Your task to perform on an android device: Go to location settings Image 0: 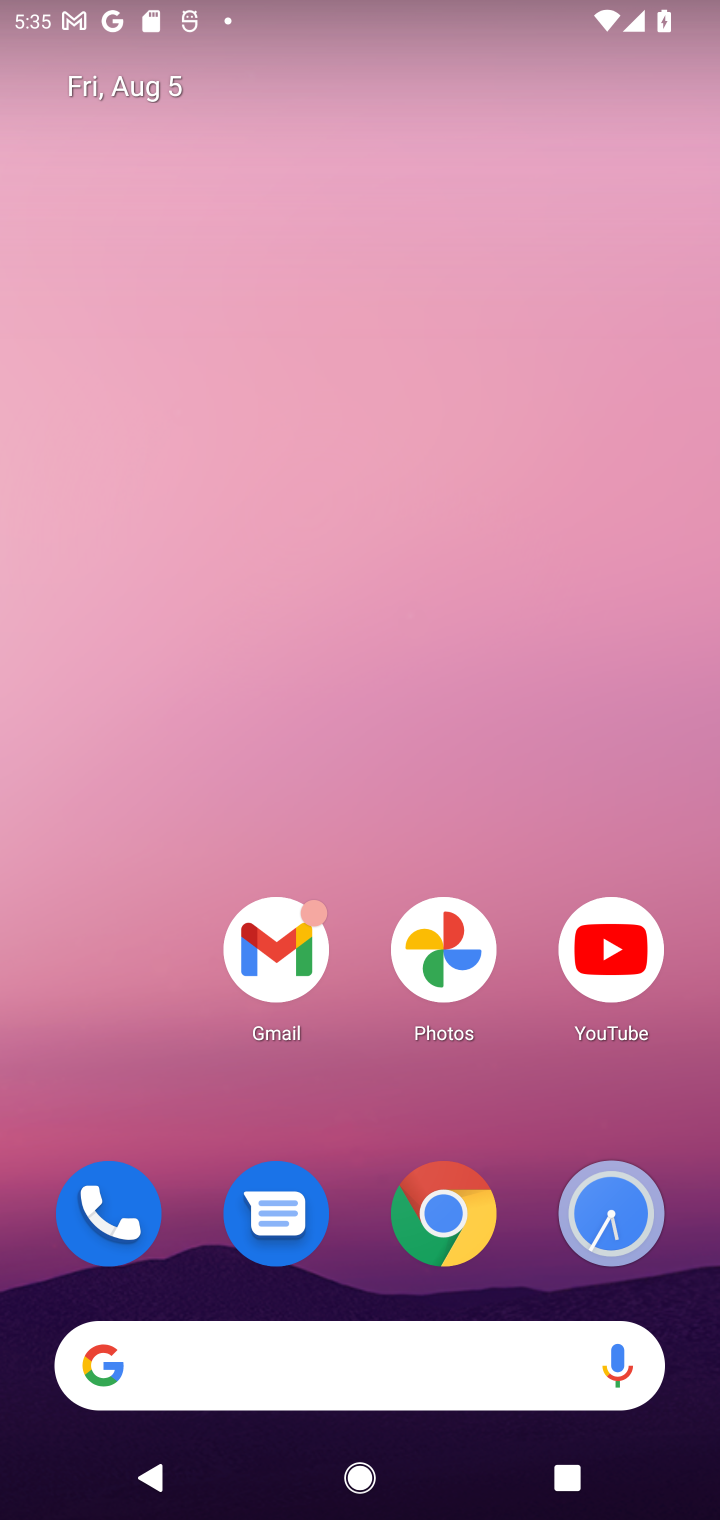
Step 0: drag from (368, 1283) to (449, 304)
Your task to perform on an android device: Go to location settings Image 1: 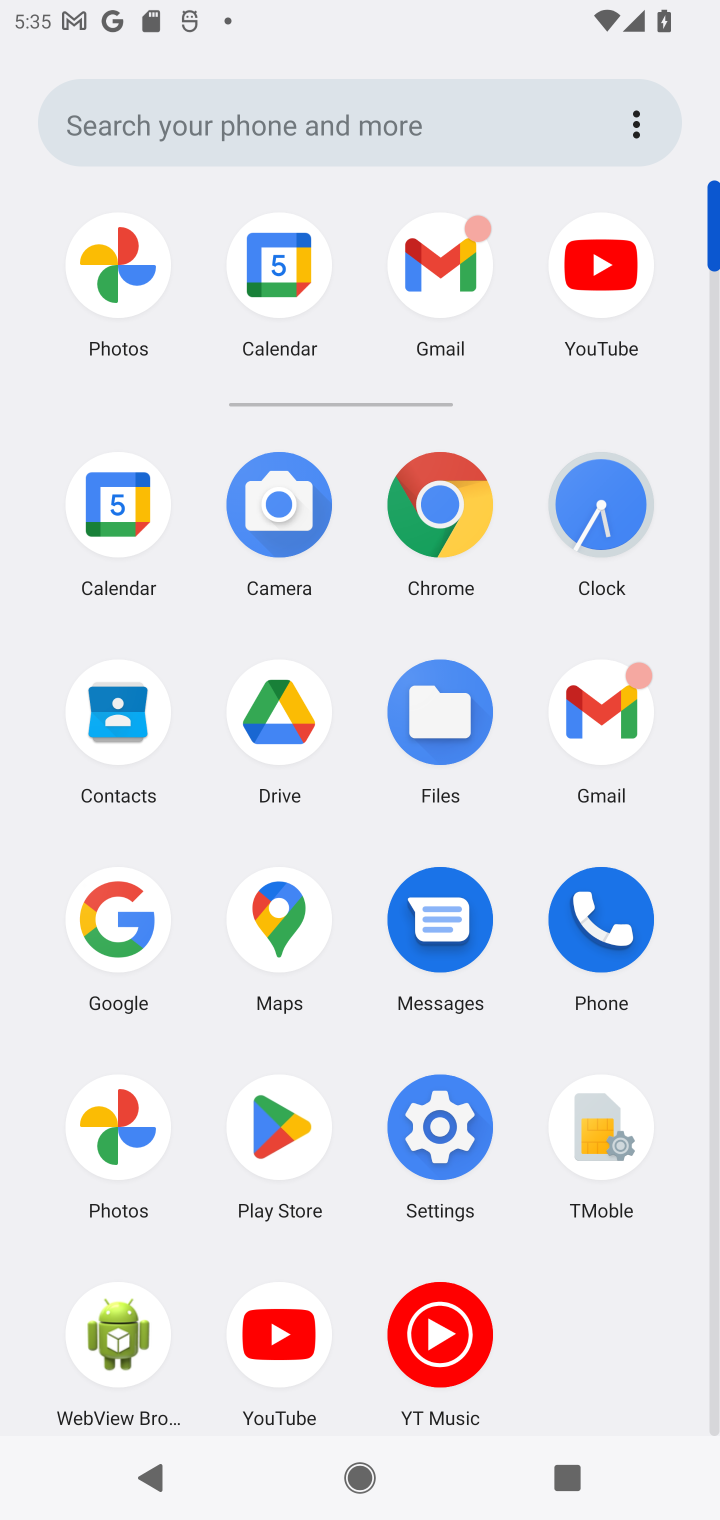
Step 1: click (404, 1131)
Your task to perform on an android device: Go to location settings Image 2: 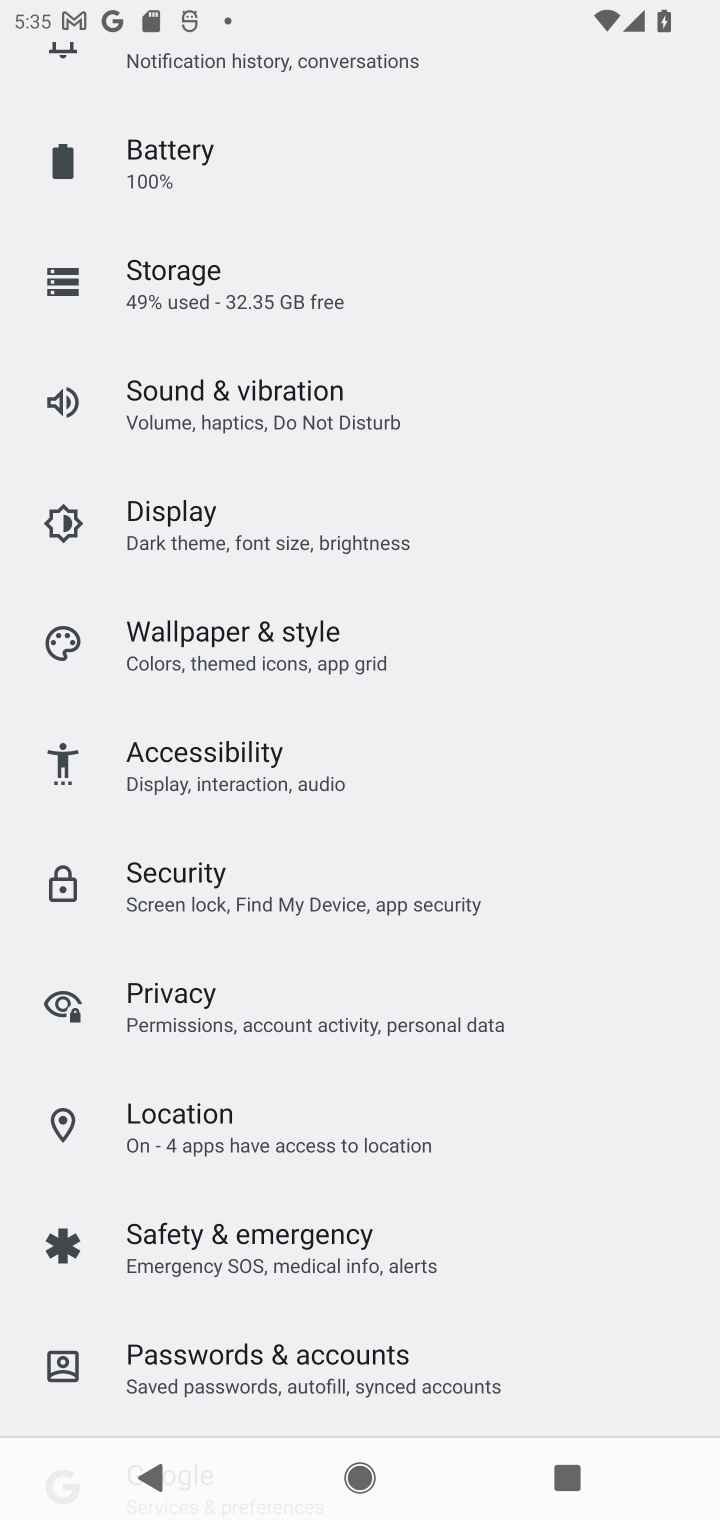
Step 2: click (404, 1131)
Your task to perform on an android device: Go to location settings Image 3: 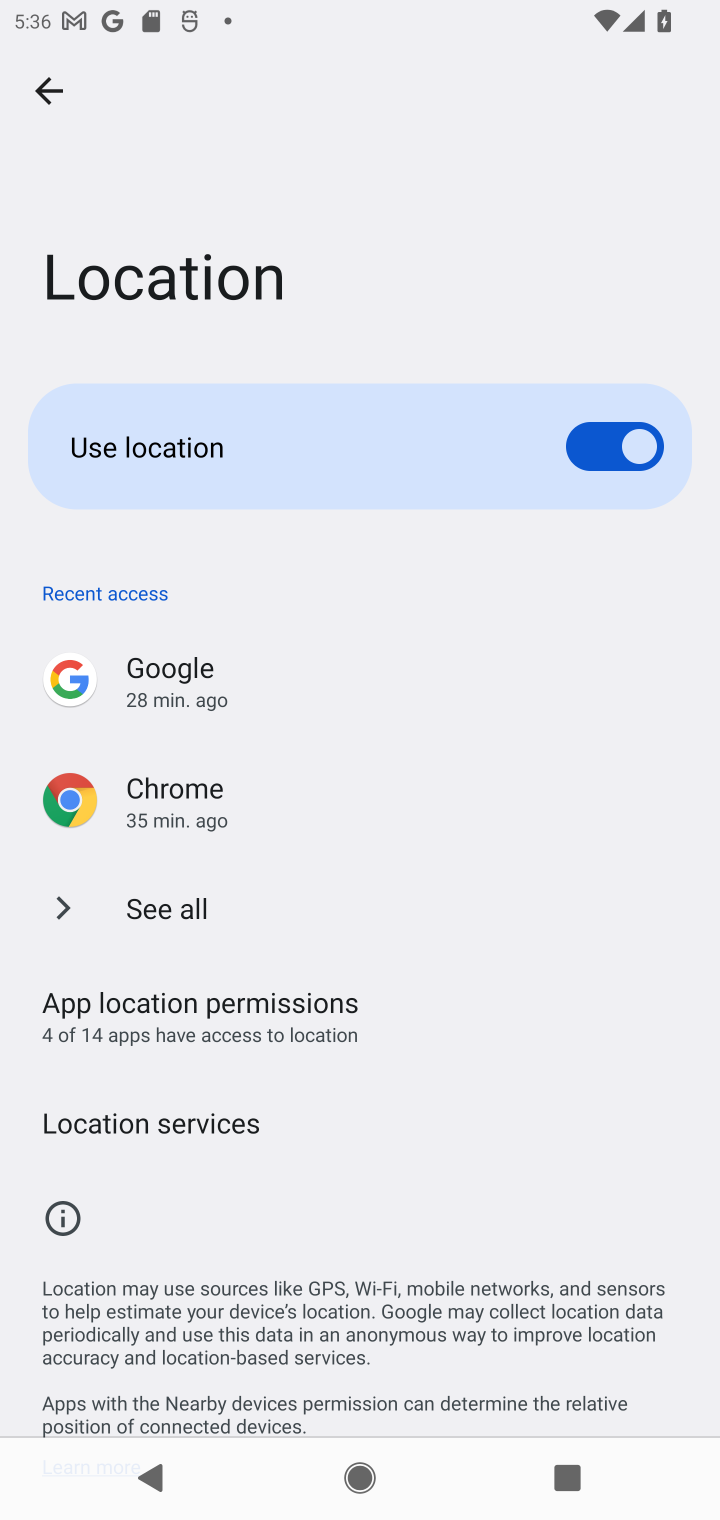
Step 3: task complete